Your task to perform on an android device: Show me productivity apps on the Play Store Image 0: 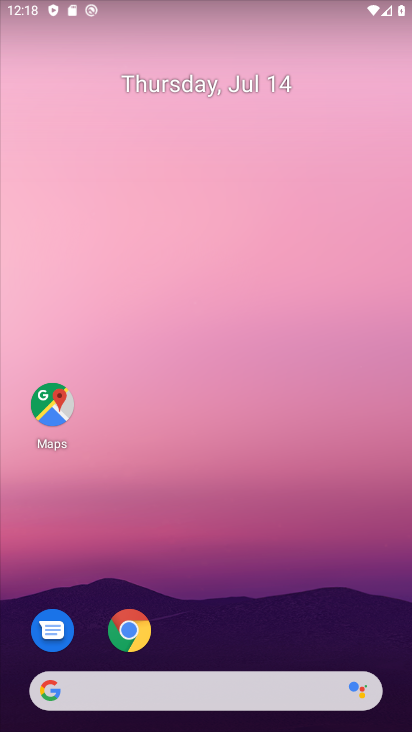
Step 0: drag from (345, 631) to (292, 128)
Your task to perform on an android device: Show me productivity apps on the Play Store Image 1: 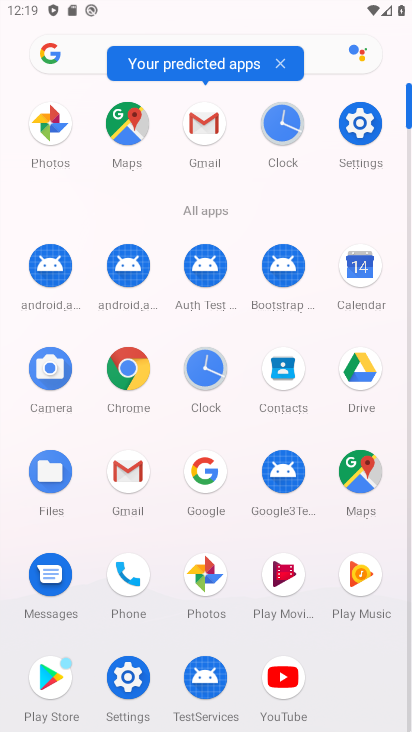
Step 1: click (51, 663)
Your task to perform on an android device: Show me productivity apps on the Play Store Image 2: 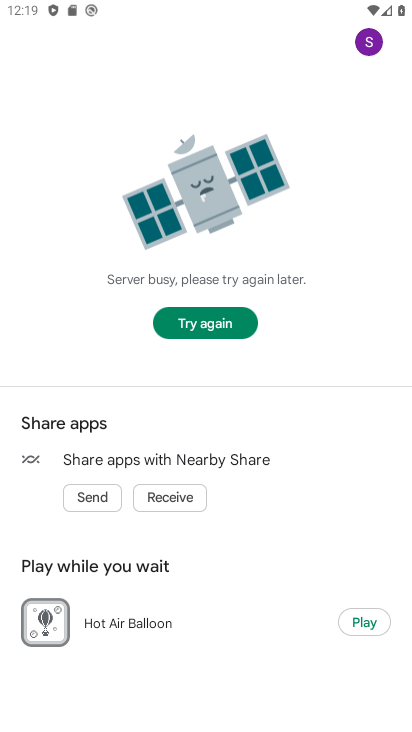
Step 2: task complete